Your task to perform on an android device: open a new tab in the chrome app Image 0: 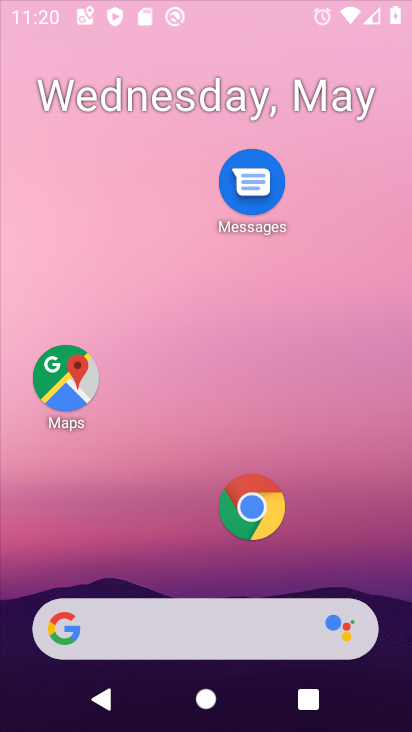
Step 0: press home button
Your task to perform on an android device: open a new tab in the chrome app Image 1: 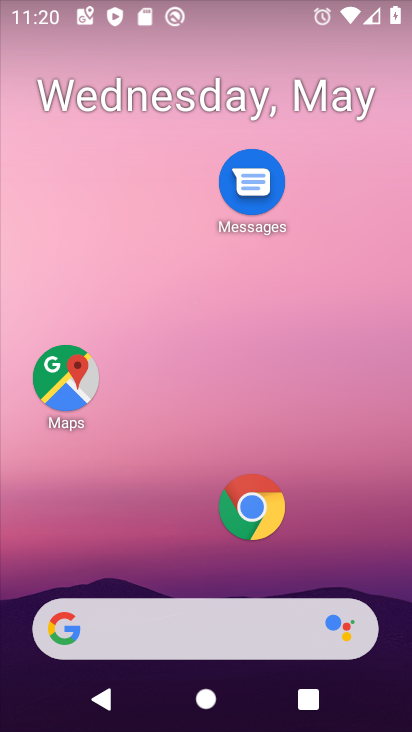
Step 1: click (262, 507)
Your task to perform on an android device: open a new tab in the chrome app Image 2: 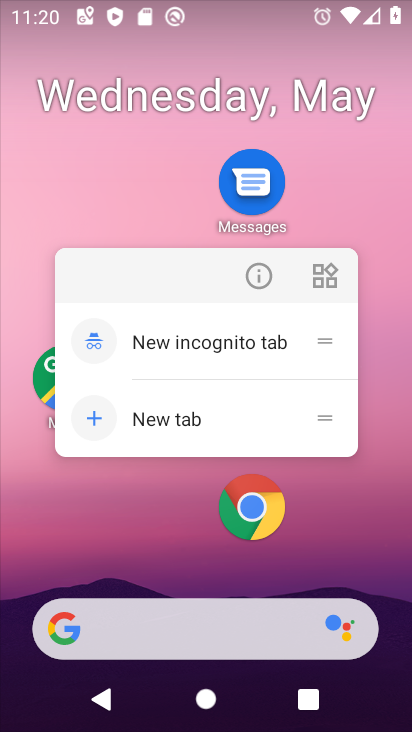
Step 2: click (253, 505)
Your task to perform on an android device: open a new tab in the chrome app Image 3: 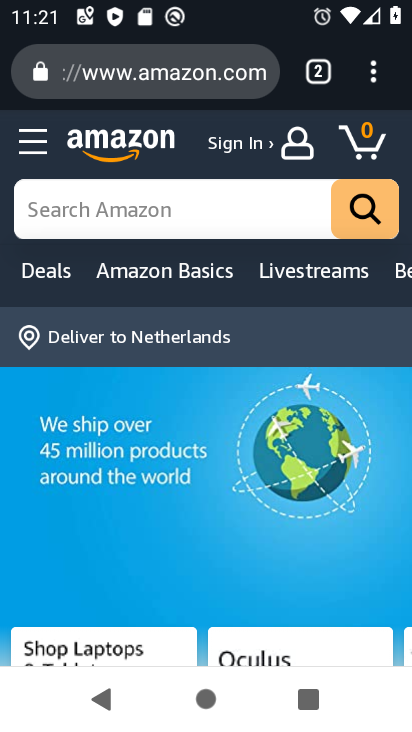
Step 3: click (319, 71)
Your task to perform on an android device: open a new tab in the chrome app Image 4: 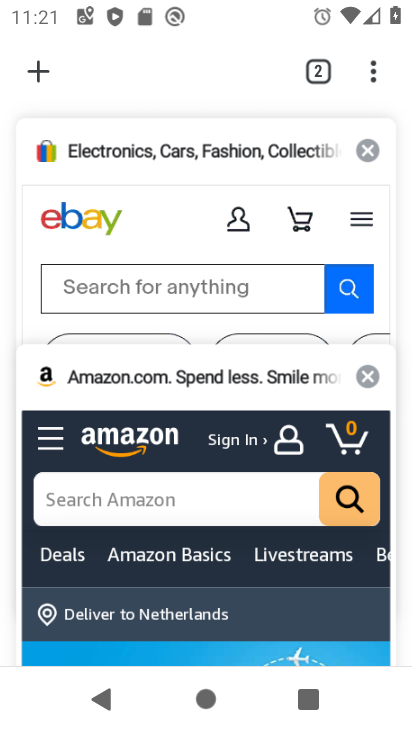
Step 4: click (26, 77)
Your task to perform on an android device: open a new tab in the chrome app Image 5: 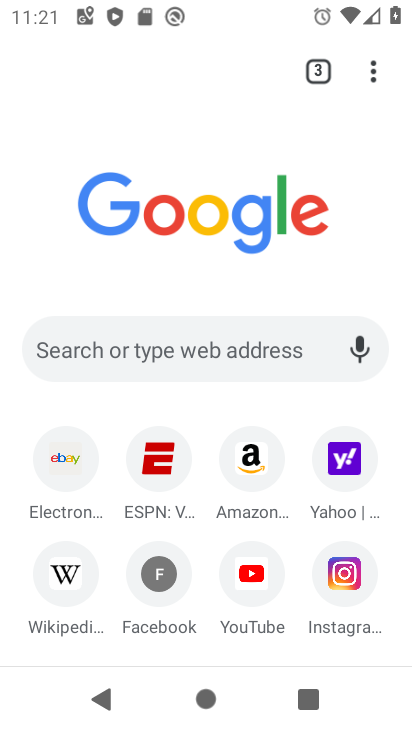
Step 5: task complete